Your task to perform on an android device: open the mobile data screen to see how much data has been used Image 0: 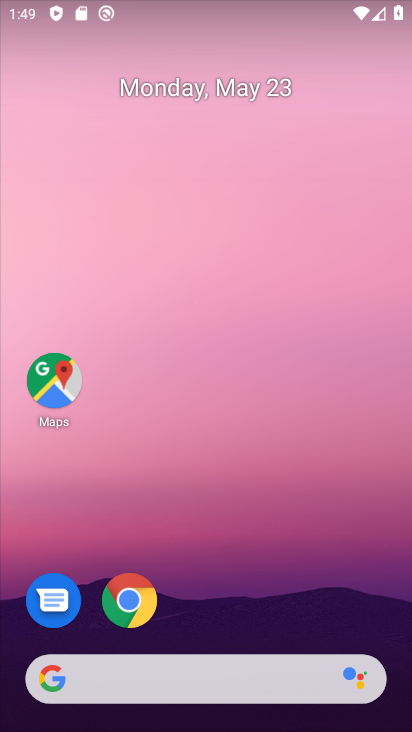
Step 0: drag from (282, 622) to (270, 274)
Your task to perform on an android device: open the mobile data screen to see how much data has been used Image 1: 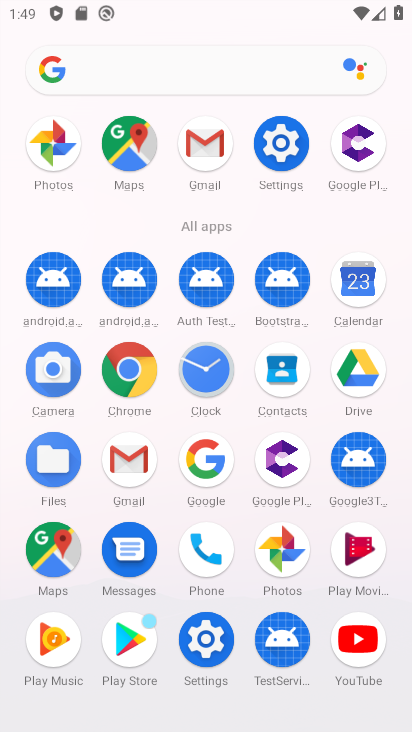
Step 1: click (291, 147)
Your task to perform on an android device: open the mobile data screen to see how much data has been used Image 2: 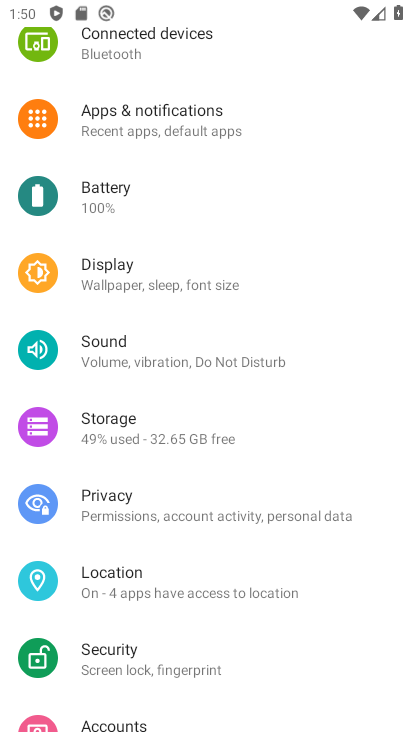
Step 2: drag from (210, 108) to (220, 494)
Your task to perform on an android device: open the mobile data screen to see how much data has been used Image 3: 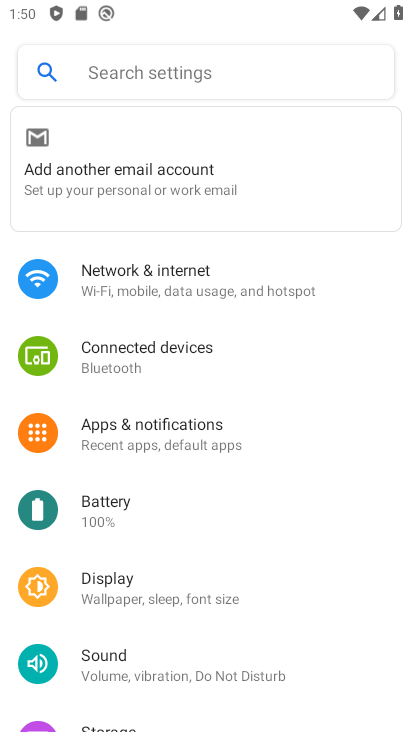
Step 3: click (175, 274)
Your task to perform on an android device: open the mobile data screen to see how much data has been used Image 4: 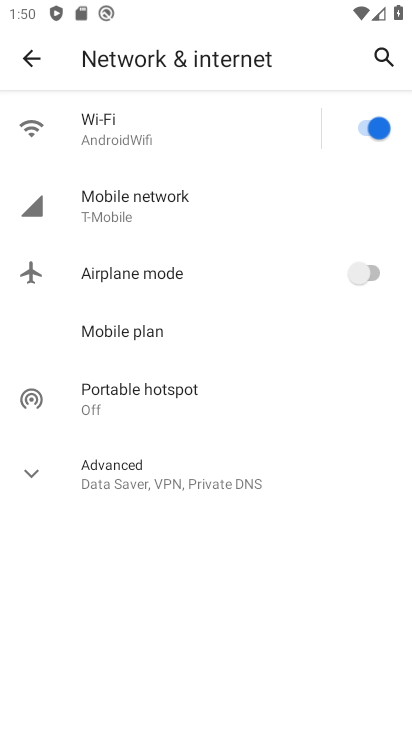
Step 4: click (171, 213)
Your task to perform on an android device: open the mobile data screen to see how much data has been used Image 5: 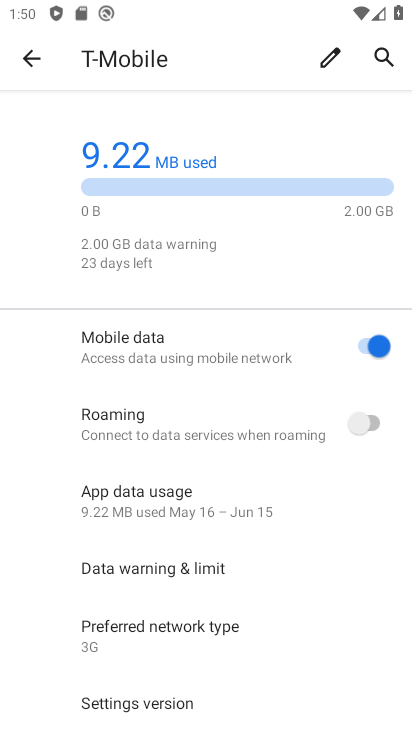
Step 5: task complete